Your task to perform on an android device: move an email to a new category in the gmail app Image 0: 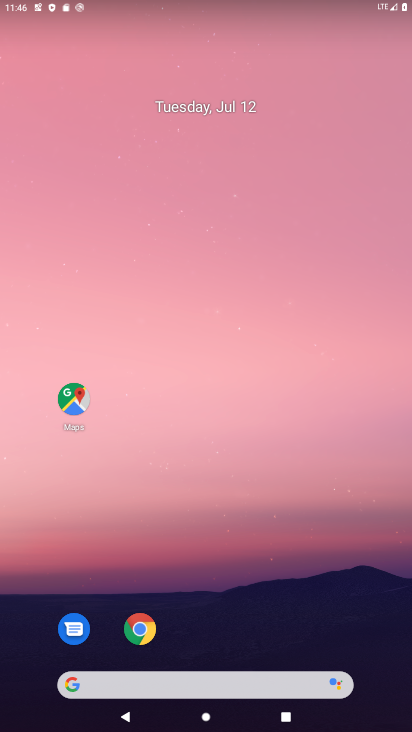
Step 0: press home button
Your task to perform on an android device: move an email to a new category in the gmail app Image 1: 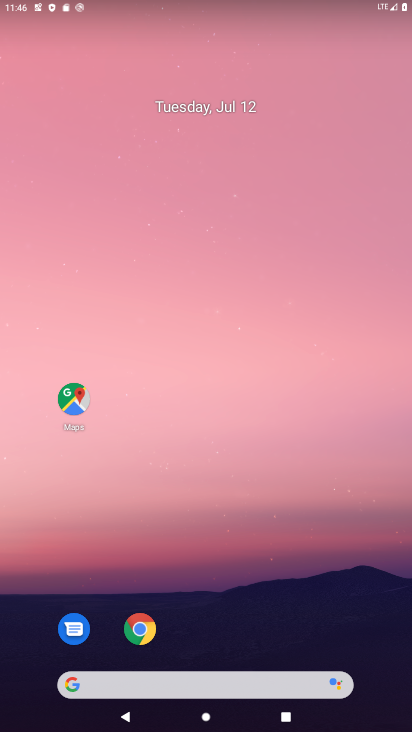
Step 1: drag from (218, 657) to (248, 37)
Your task to perform on an android device: move an email to a new category in the gmail app Image 2: 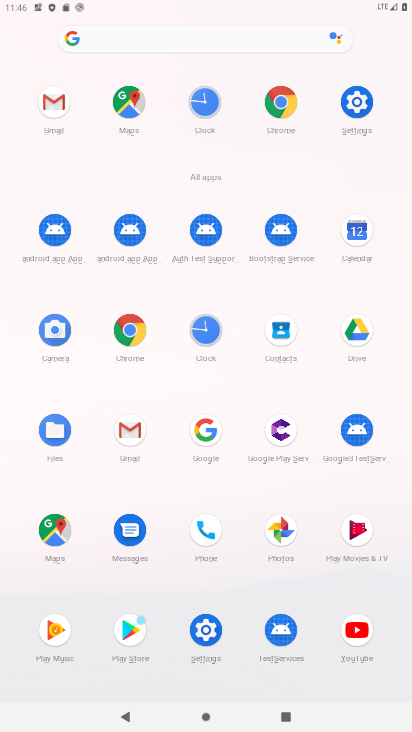
Step 2: click (51, 95)
Your task to perform on an android device: move an email to a new category in the gmail app Image 3: 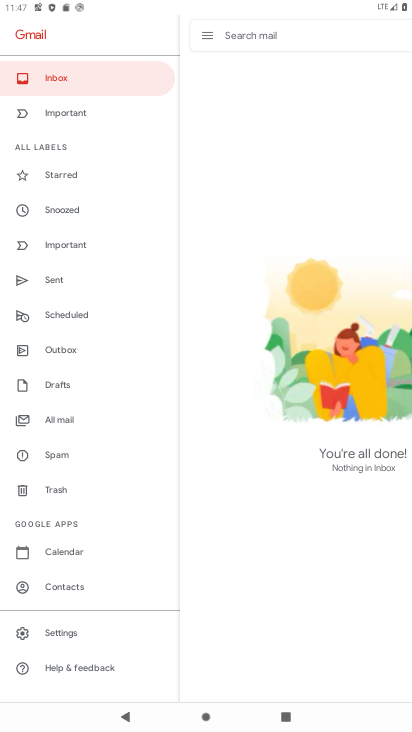
Step 3: task complete